Your task to perform on an android device: Check the news Image 0: 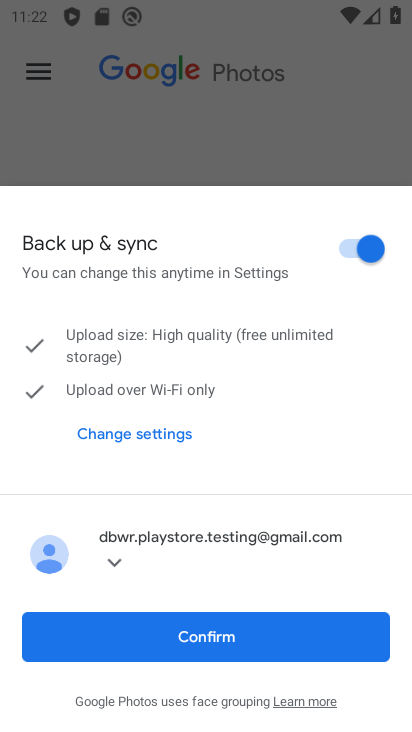
Step 0: press home button
Your task to perform on an android device: Check the news Image 1: 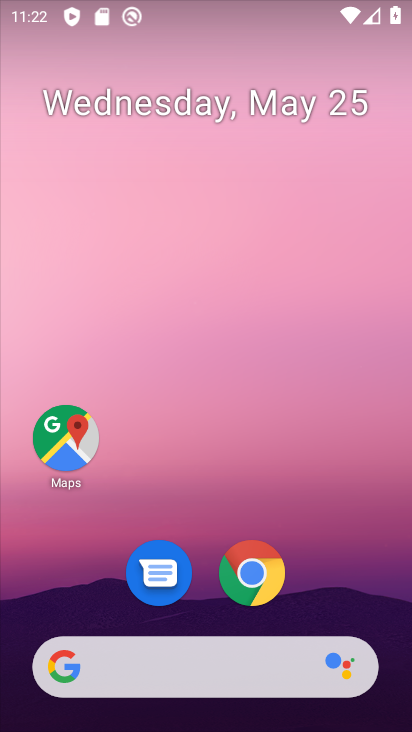
Step 1: task complete